Your task to perform on an android device: turn on sleep mode Image 0: 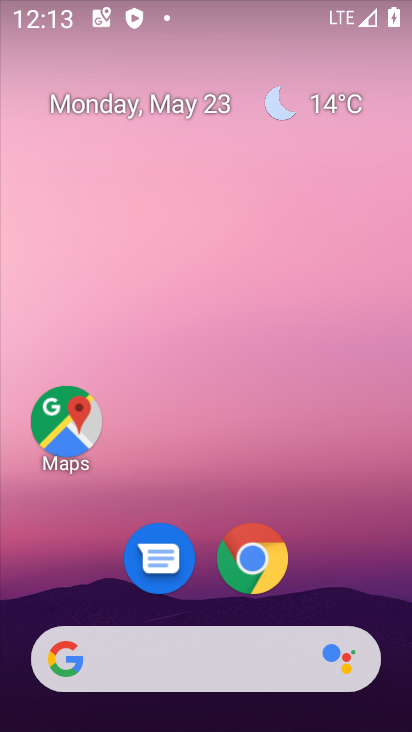
Step 0: drag from (354, 611) to (406, 1)
Your task to perform on an android device: turn on sleep mode Image 1: 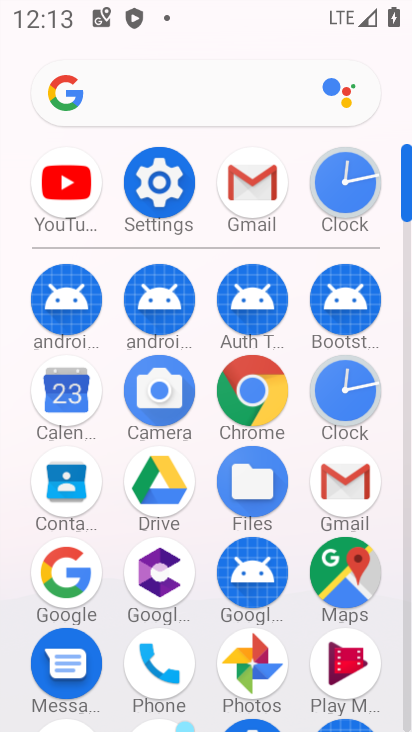
Step 1: click (164, 189)
Your task to perform on an android device: turn on sleep mode Image 2: 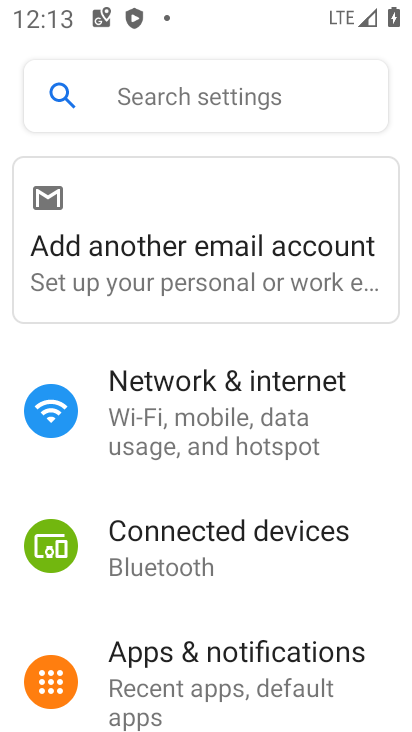
Step 2: drag from (283, 635) to (274, 161)
Your task to perform on an android device: turn on sleep mode Image 3: 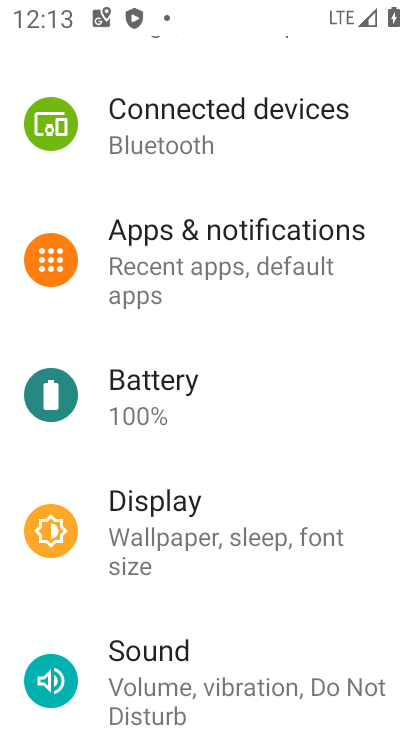
Step 3: click (132, 532)
Your task to perform on an android device: turn on sleep mode Image 4: 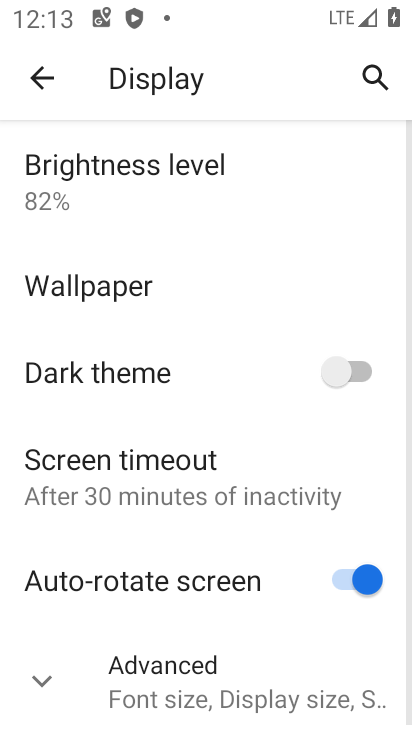
Step 4: drag from (137, 551) to (127, 196)
Your task to perform on an android device: turn on sleep mode Image 5: 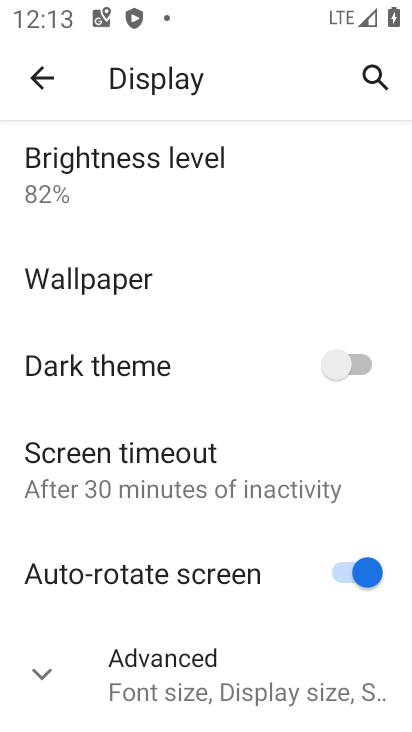
Step 5: click (42, 682)
Your task to perform on an android device: turn on sleep mode Image 6: 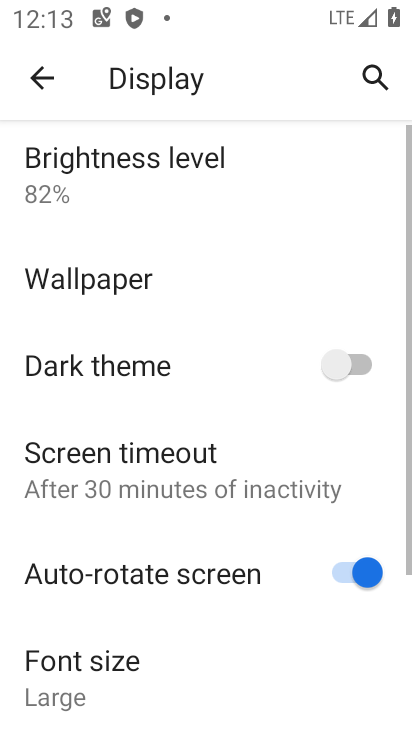
Step 6: task complete